Your task to perform on an android device: refresh tabs in the chrome app Image 0: 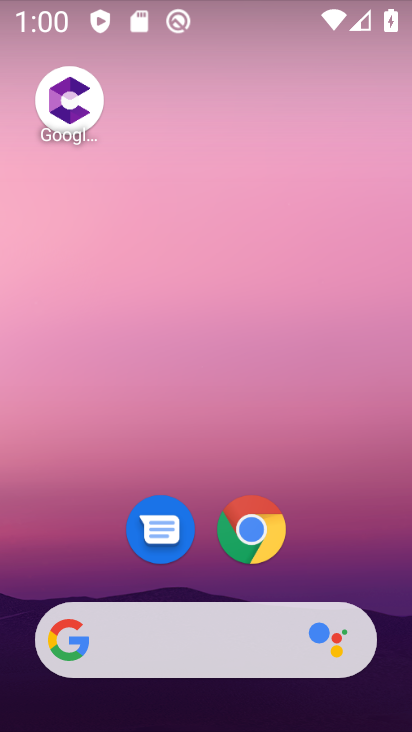
Step 0: click (253, 535)
Your task to perform on an android device: refresh tabs in the chrome app Image 1: 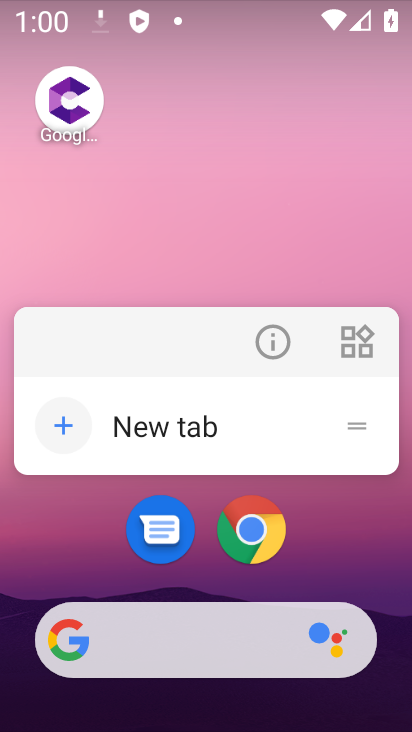
Step 1: click (254, 532)
Your task to perform on an android device: refresh tabs in the chrome app Image 2: 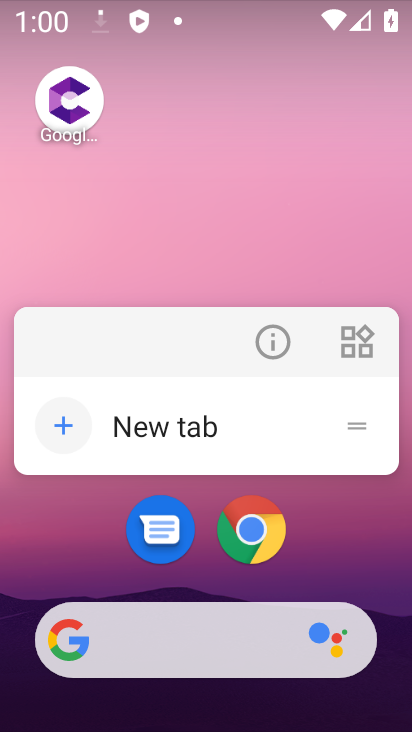
Step 2: click (254, 532)
Your task to perform on an android device: refresh tabs in the chrome app Image 3: 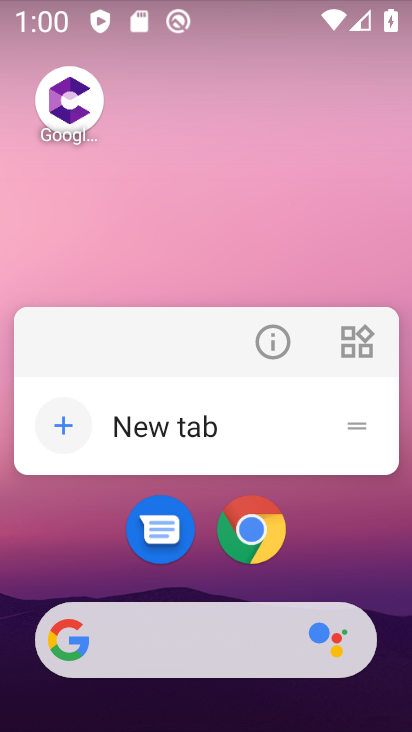
Step 3: click (247, 528)
Your task to perform on an android device: refresh tabs in the chrome app Image 4: 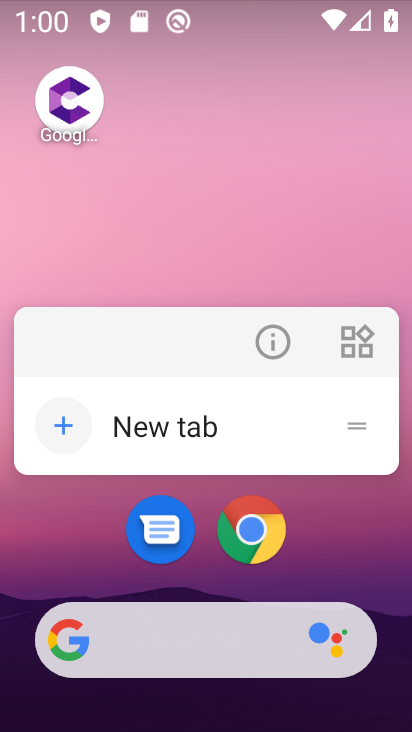
Step 4: click (247, 528)
Your task to perform on an android device: refresh tabs in the chrome app Image 5: 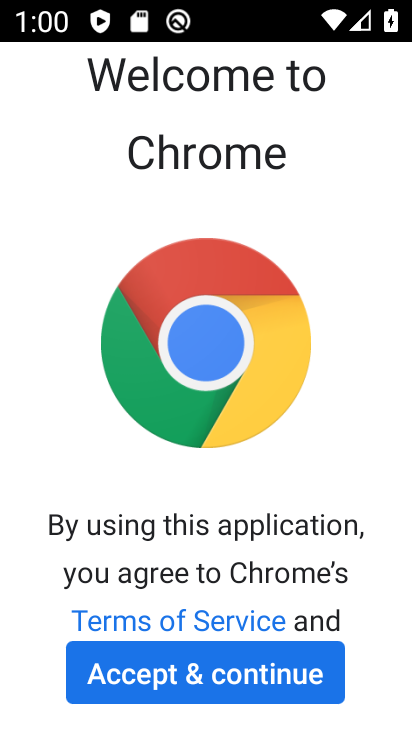
Step 5: click (178, 681)
Your task to perform on an android device: refresh tabs in the chrome app Image 6: 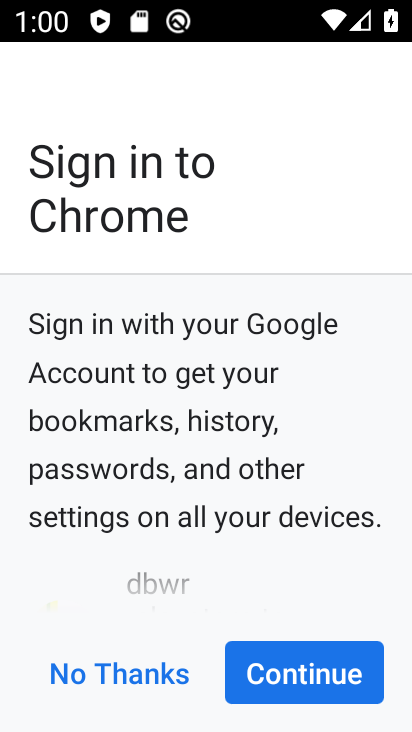
Step 6: click (250, 671)
Your task to perform on an android device: refresh tabs in the chrome app Image 7: 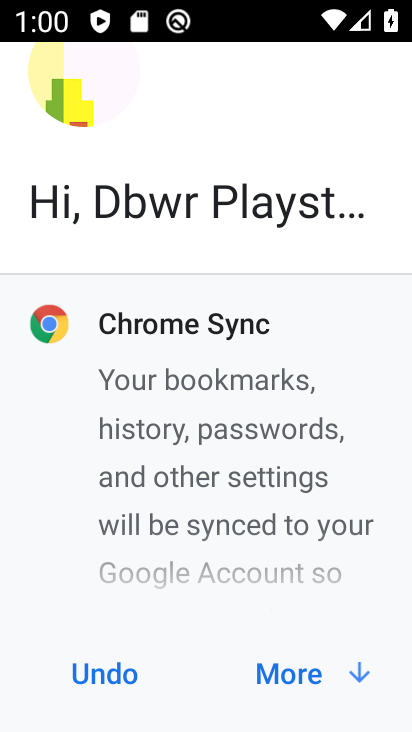
Step 7: click (271, 675)
Your task to perform on an android device: refresh tabs in the chrome app Image 8: 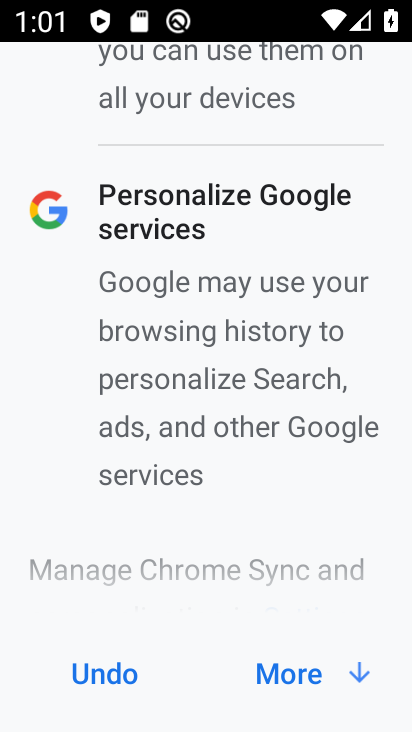
Step 8: click (271, 675)
Your task to perform on an android device: refresh tabs in the chrome app Image 9: 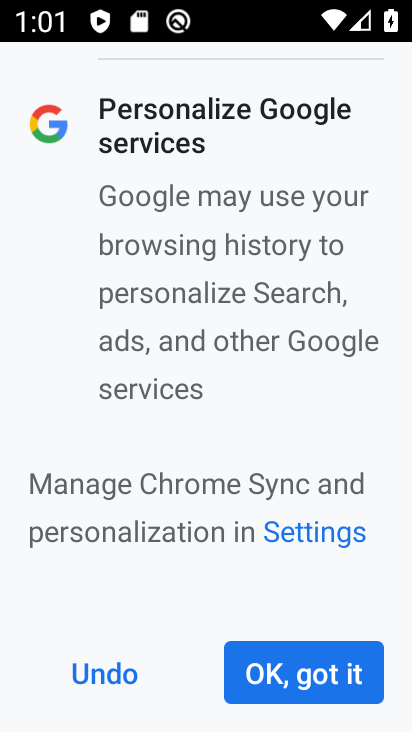
Step 9: click (271, 675)
Your task to perform on an android device: refresh tabs in the chrome app Image 10: 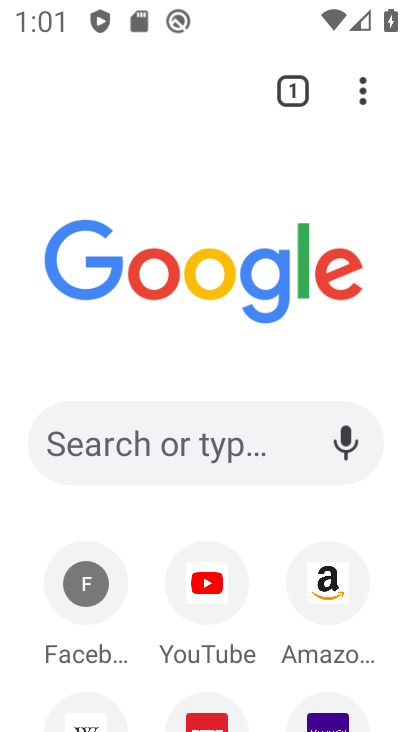
Step 10: click (365, 91)
Your task to perform on an android device: refresh tabs in the chrome app Image 11: 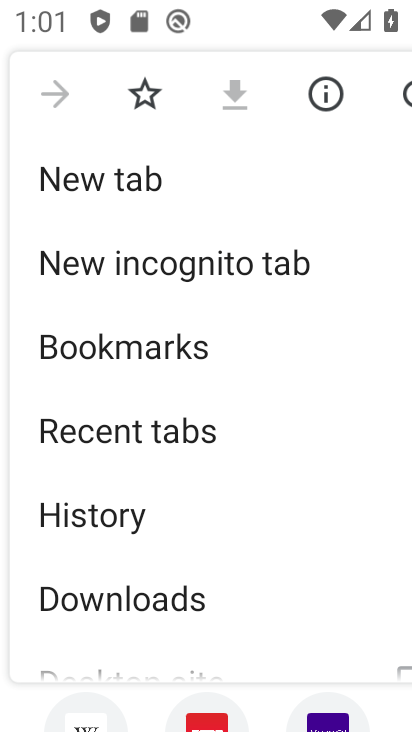
Step 11: click (403, 93)
Your task to perform on an android device: refresh tabs in the chrome app Image 12: 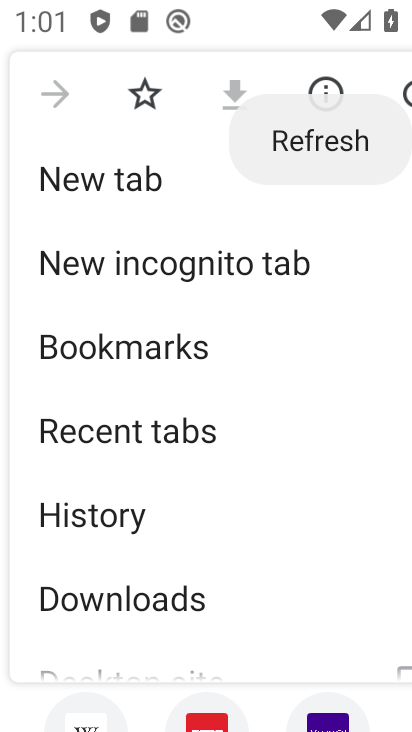
Step 12: click (403, 93)
Your task to perform on an android device: refresh tabs in the chrome app Image 13: 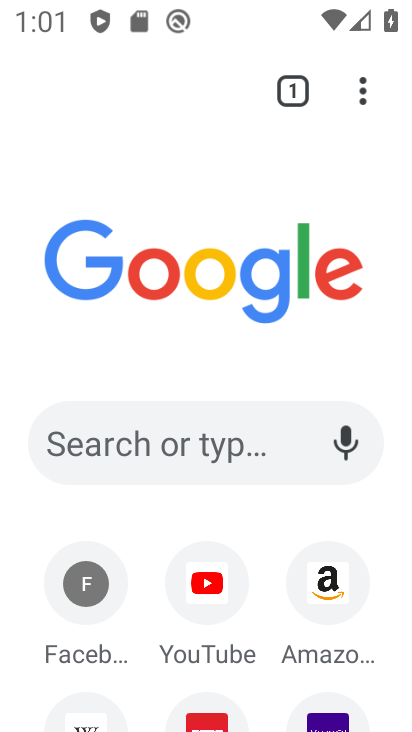
Step 13: task complete